Your task to perform on an android device: turn notification dots off Image 0: 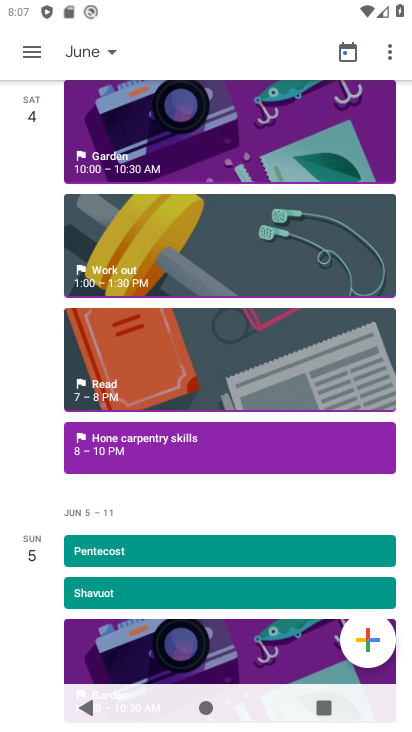
Step 0: drag from (267, 612) to (223, 169)
Your task to perform on an android device: turn notification dots off Image 1: 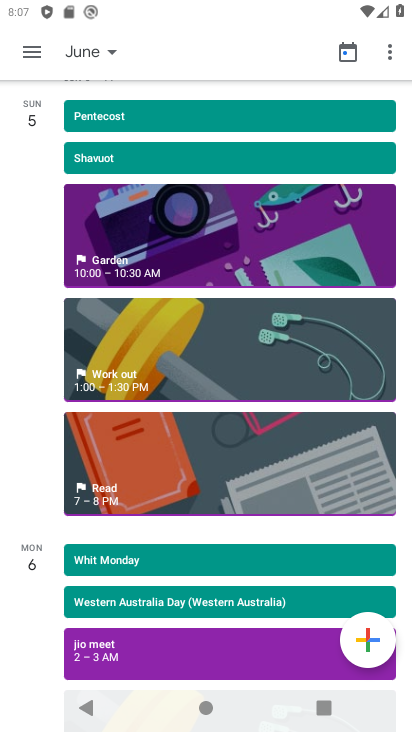
Step 1: press back button
Your task to perform on an android device: turn notification dots off Image 2: 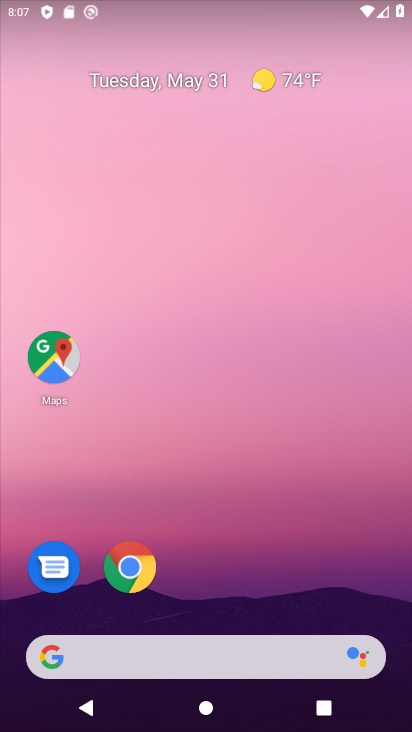
Step 2: drag from (279, 699) to (278, 1)
Your task to perform on an android device: turn notification dots off Image 3: 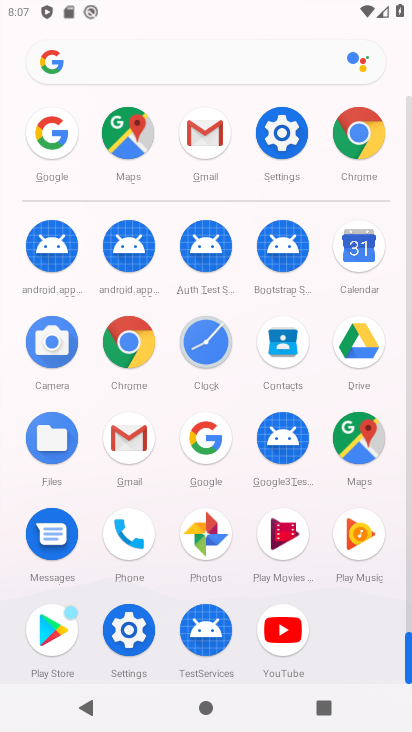
Step 3: click (280, 130)
Your task to perform on an android device: turn notification dots off Image 4: 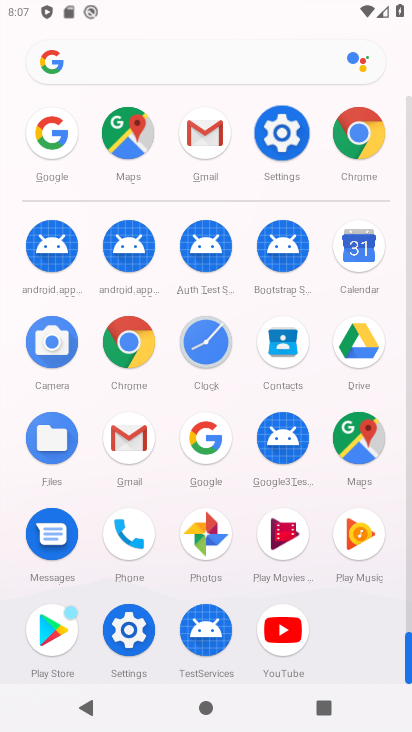
Step 4: click (280, 130)
Your task to perform on an android device: turn notification dots off Image 5: 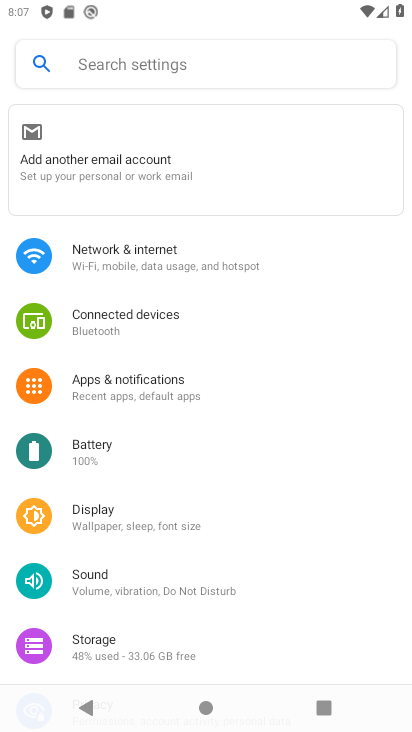
Step 5: click (141, 376)
Your task to perform on an android device: turn notification dots off Image 6: 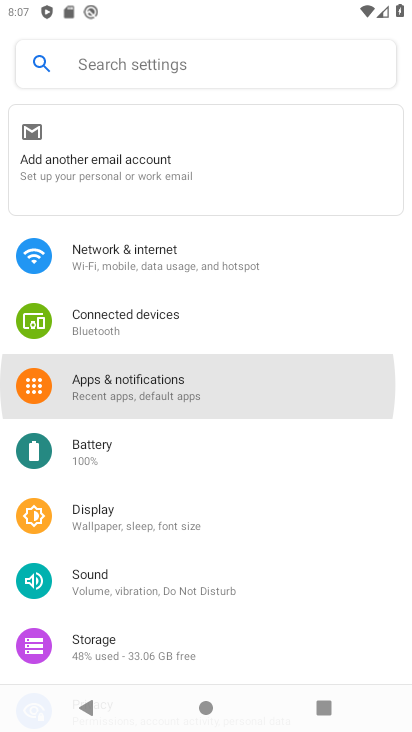
Step 6: click (137, 380)
Your task to perform on an android device: turn notification dots off Image 7: 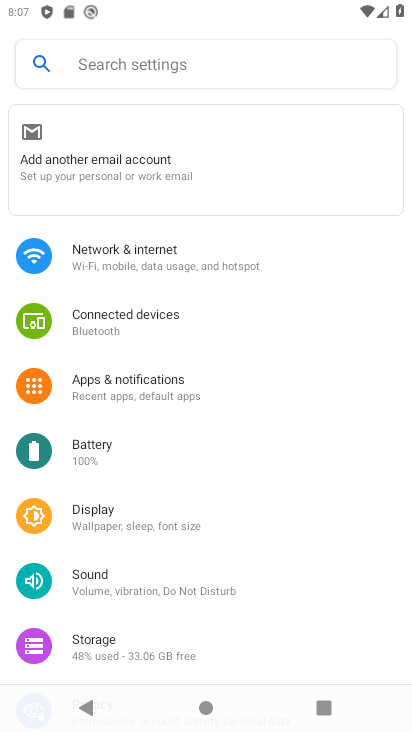
Step 7: click (137, 380)
Your task to perform on an android device: turn notification dots off Image 8: 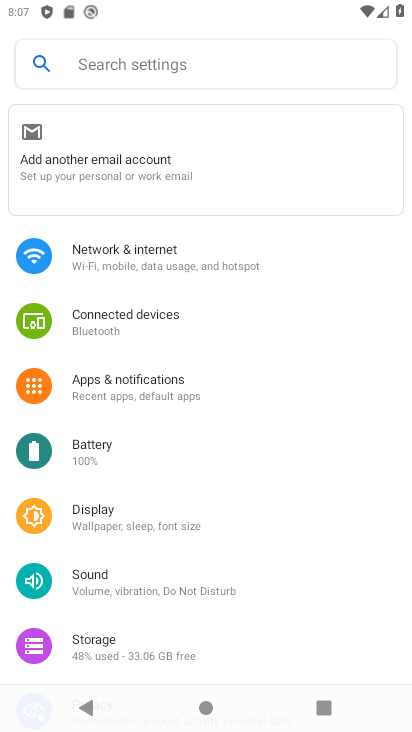
Step 8: click (137, 380)
Your task to perform on an android device: turn notification dots off Image 9: 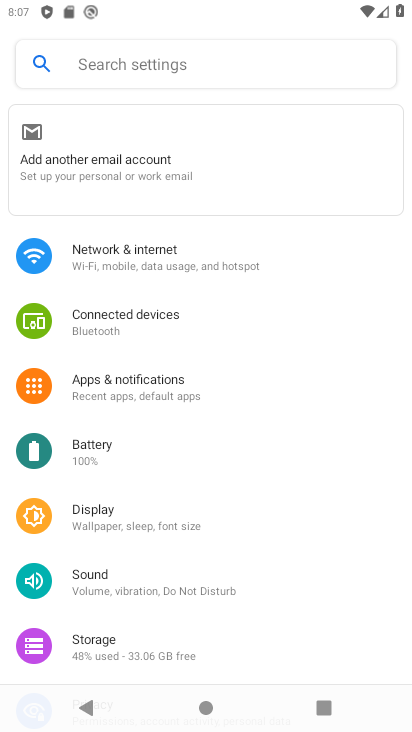
Step 9: click (137, 380)
Your task to perform on an android device: turn notification dots off Image 10: 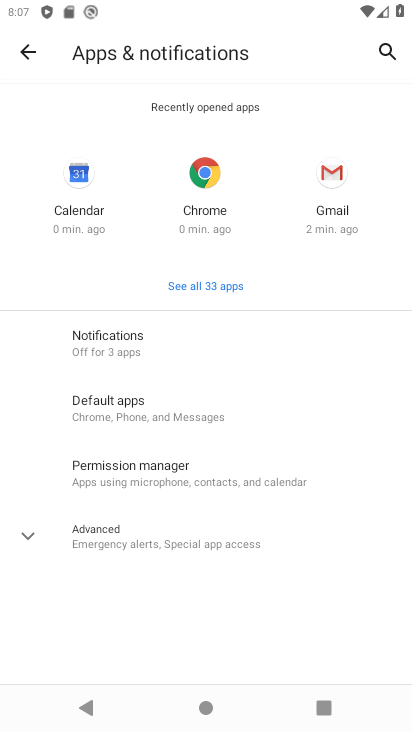
Step 10: click (100, 338)
Your task to perform on an android device: turn notification dots off Image 11: 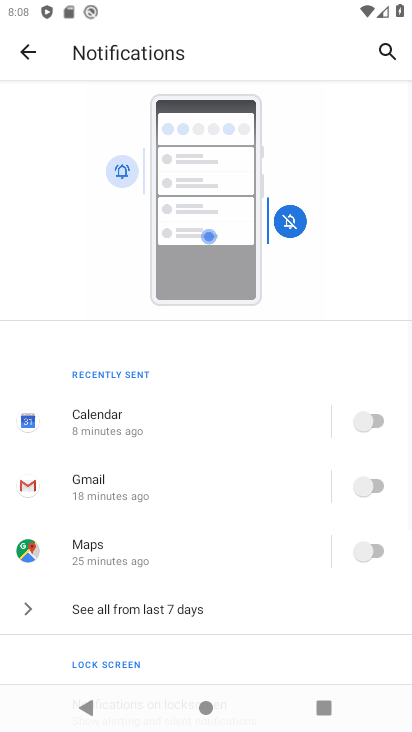
Step 11: drag from (231, 542) to (161, 39)
Your task to perform on an android device: turn notification dots off Image 12: 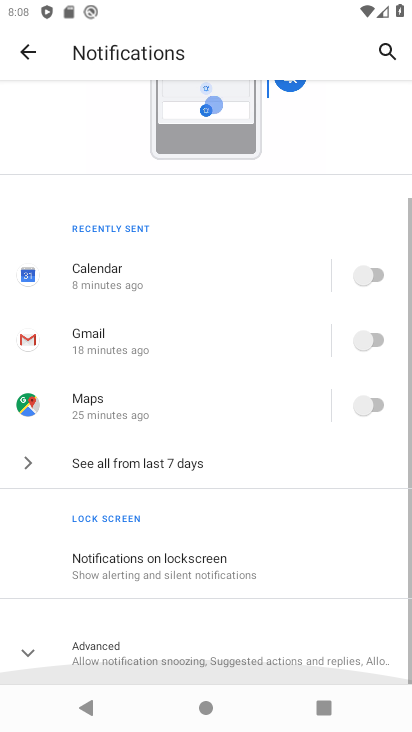
Step 12: drag from (164, 462) to (164, 128)
Your task to perform on an android device: turn notification dots off Image 13: 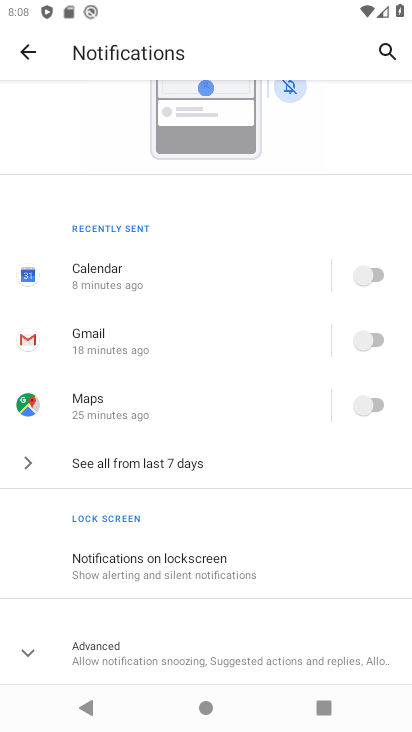
Step 13: drag from (205, 425) to (124, 130)
Your task to perform on an android device: turn notification dots off Image 14: 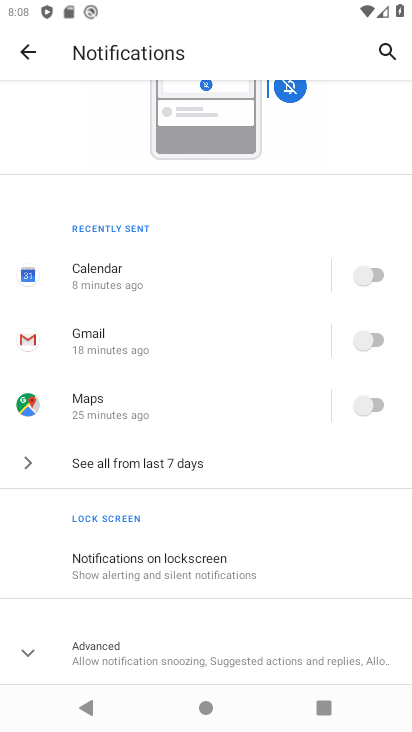
Step 14: drag from (219, 529) to (247, 264)
Your task to perform on an android device: turn notification dots off Image 15: 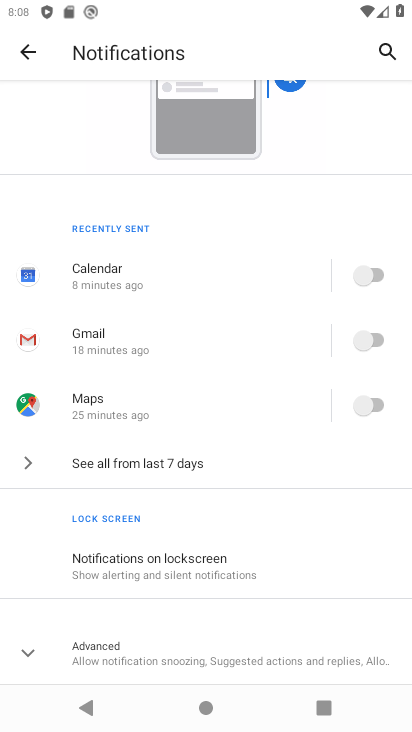
Step 15: click (110, 653)
Your task to perform on an android device: turn notification dots off Image 16: 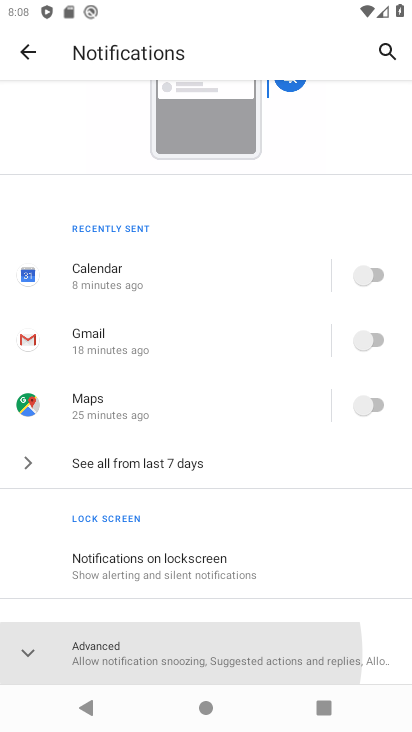
Step 16: click (109, 653)
Your task to perform on an android device: turn notification dots off Image 17: 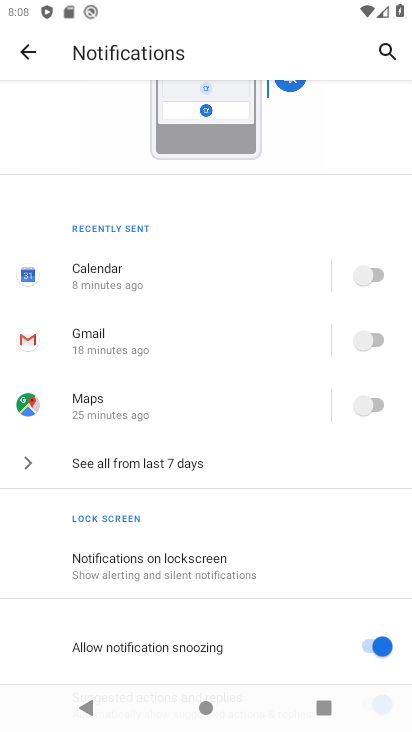
Step 17: click (385, 653)
Your task to perform on an android device: turn notification dots off Image 18: 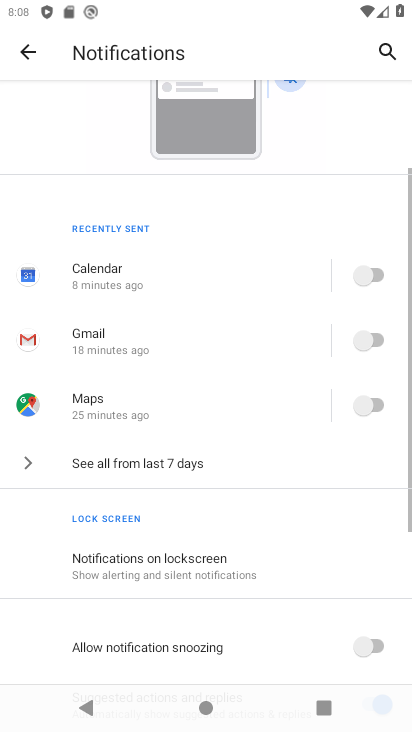
Step 18: drag from (180, 518) to (151, 273)
Your task to perform on an android device: turn notification dots off Image 19: 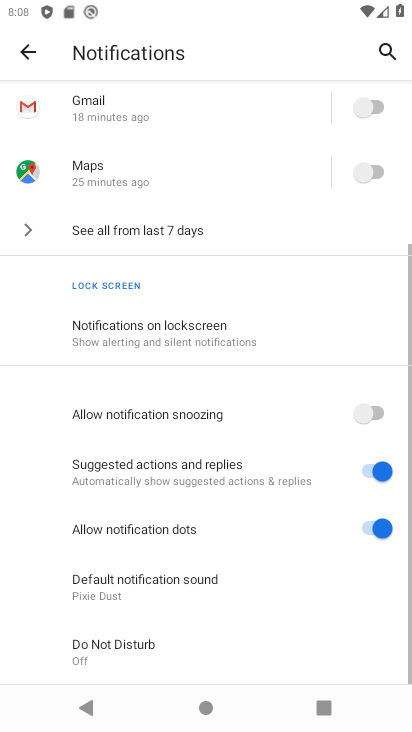
Step 19: drag from (193, 587) to (182, 179)
Your task to perform on an android device: turn notification dots off Image 20: 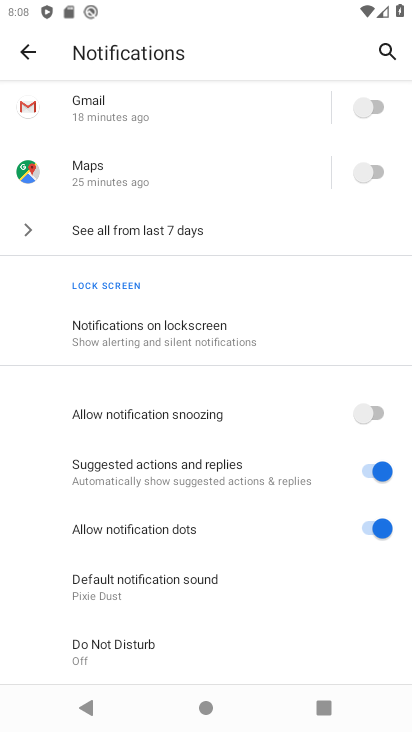
Step 20: click (381, 517)
Your task to perform on an android device: turn notification dots off Image 21: 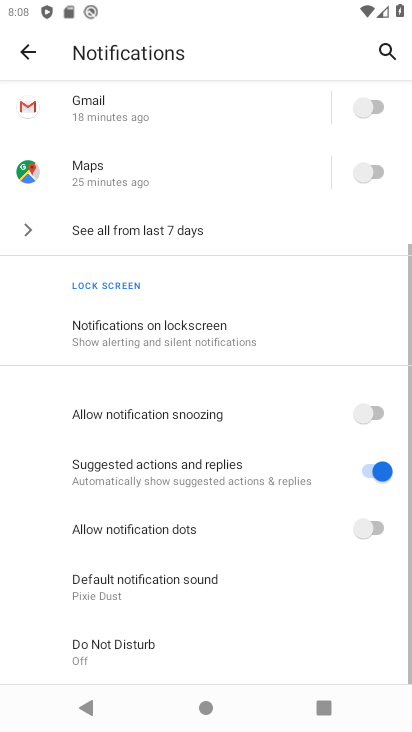
Step 21: task complete